Your task to perform on an android device: Go to location settings Image 0: 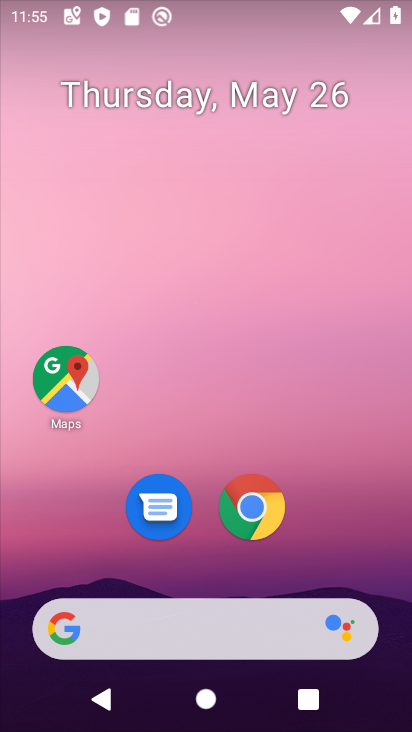
Step 0: drag from (379, 524) to (292, 81)
Your task to perform on an android device: Go to location settings Image 1: 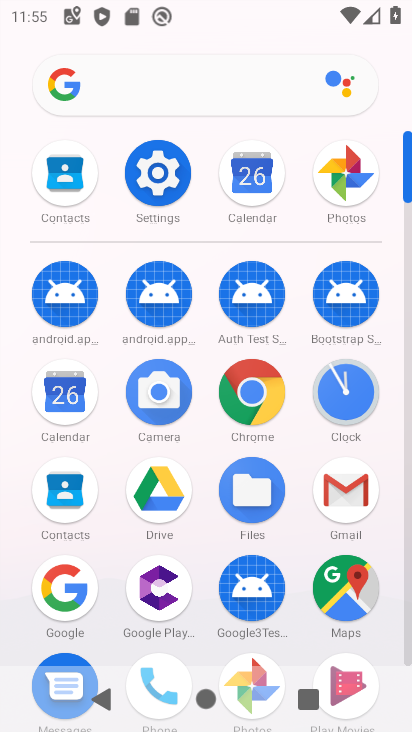
Step 1: drag from (201, 627) to (180, 111)
Your task to perform on an android device: Go to location settings Image 2: 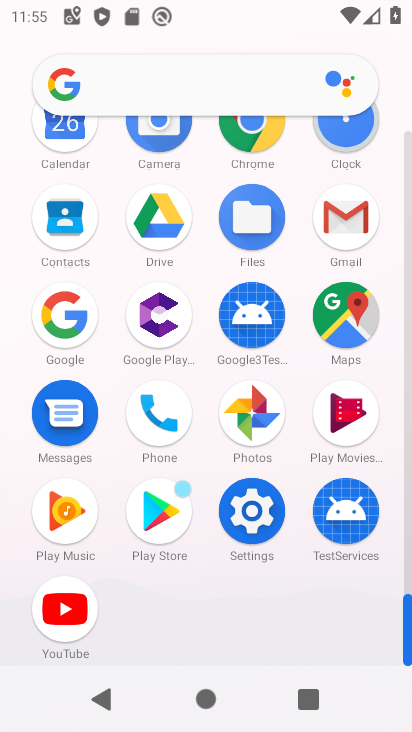
Step 2: click (252, 507)
Your task to perform on an android device: Go to location settings Image 3: 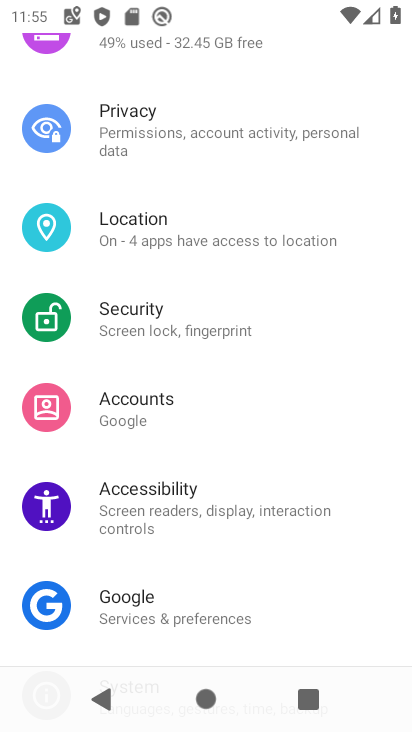
Step 3: click (164, 238)
Your task to perform on an android device: Go to location settings Image 4: 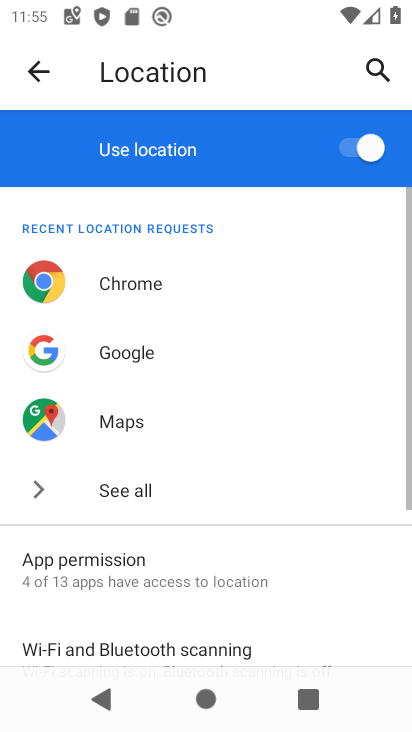
Step 4: task complete